Your task to perform on an android device: uninstall "Facebook" Image 0: 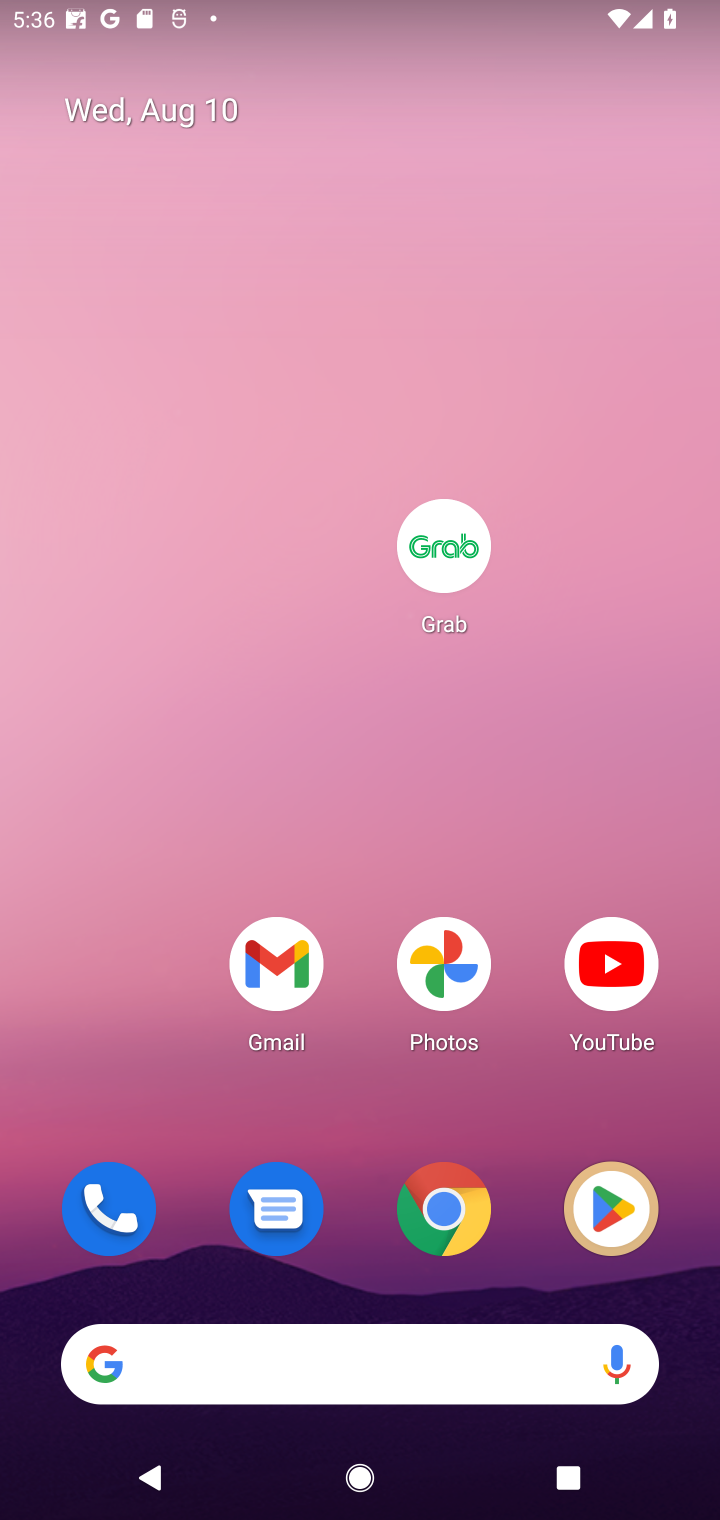
Step 0: drag from (350, 1274) to (462, 244)
Your task to perform on an android device: uninstall "Facebook" Image 1: 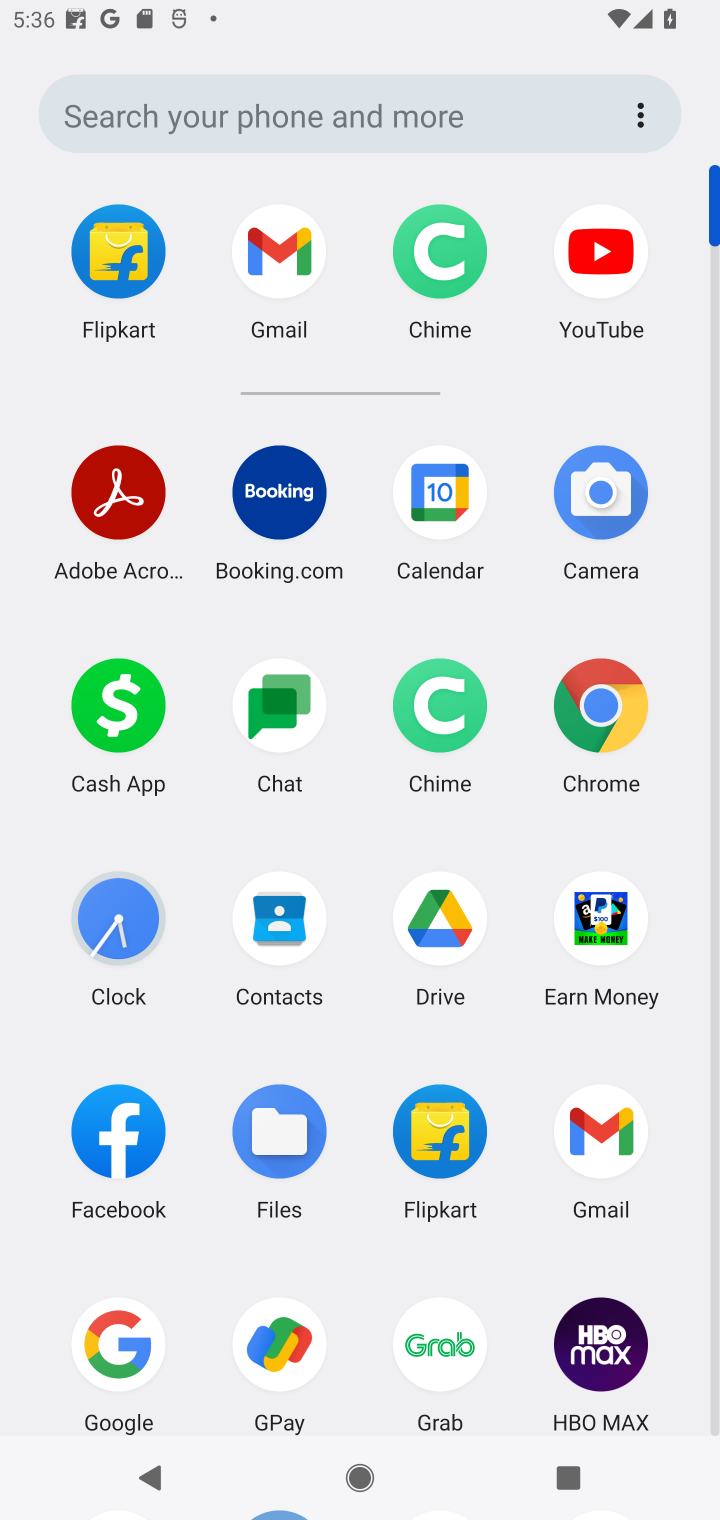
Step 1: click (99, 1175)
Your task to perform on an android device: uninstall "Facebook" Image 2: 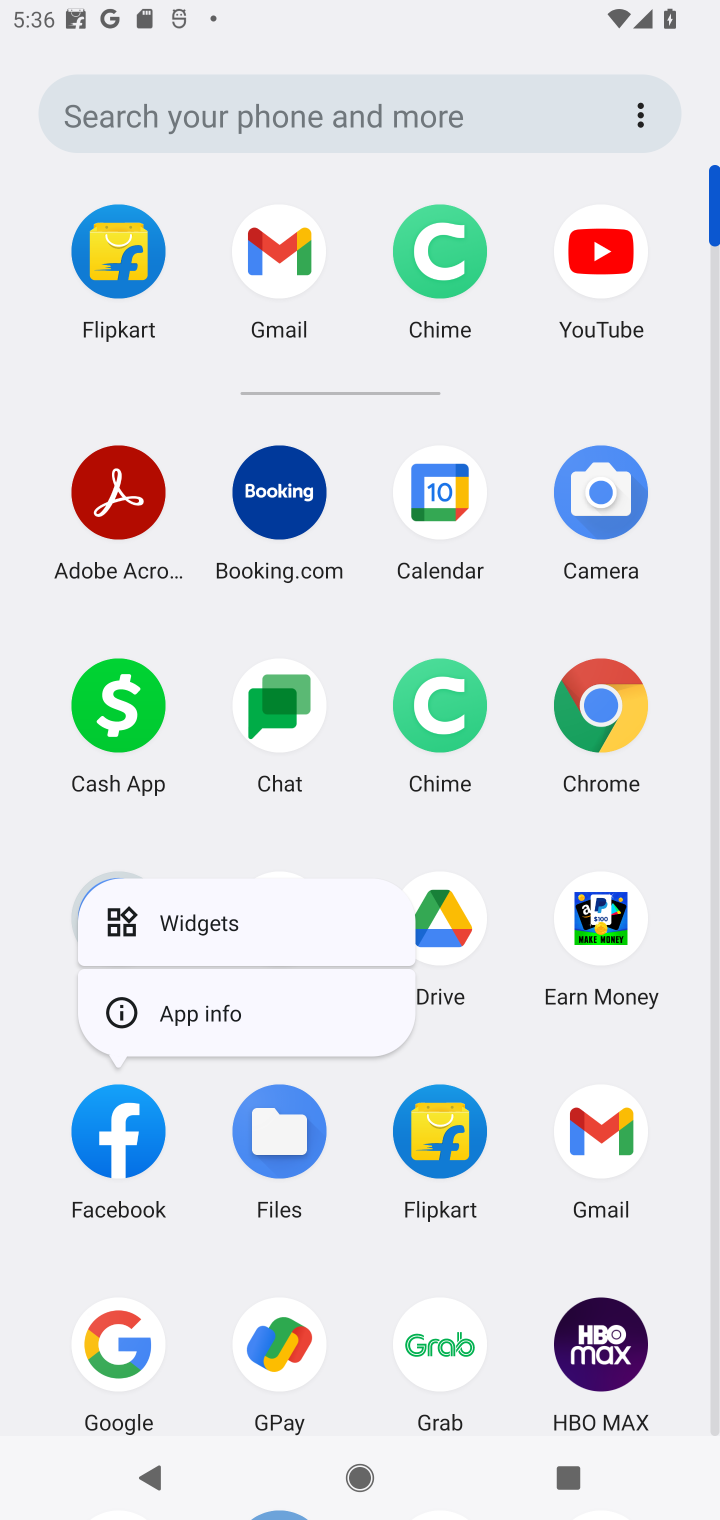
Step 2: click (179, 1018)
Your task to perform on an android device: uninstall "Facebook" Image 3: 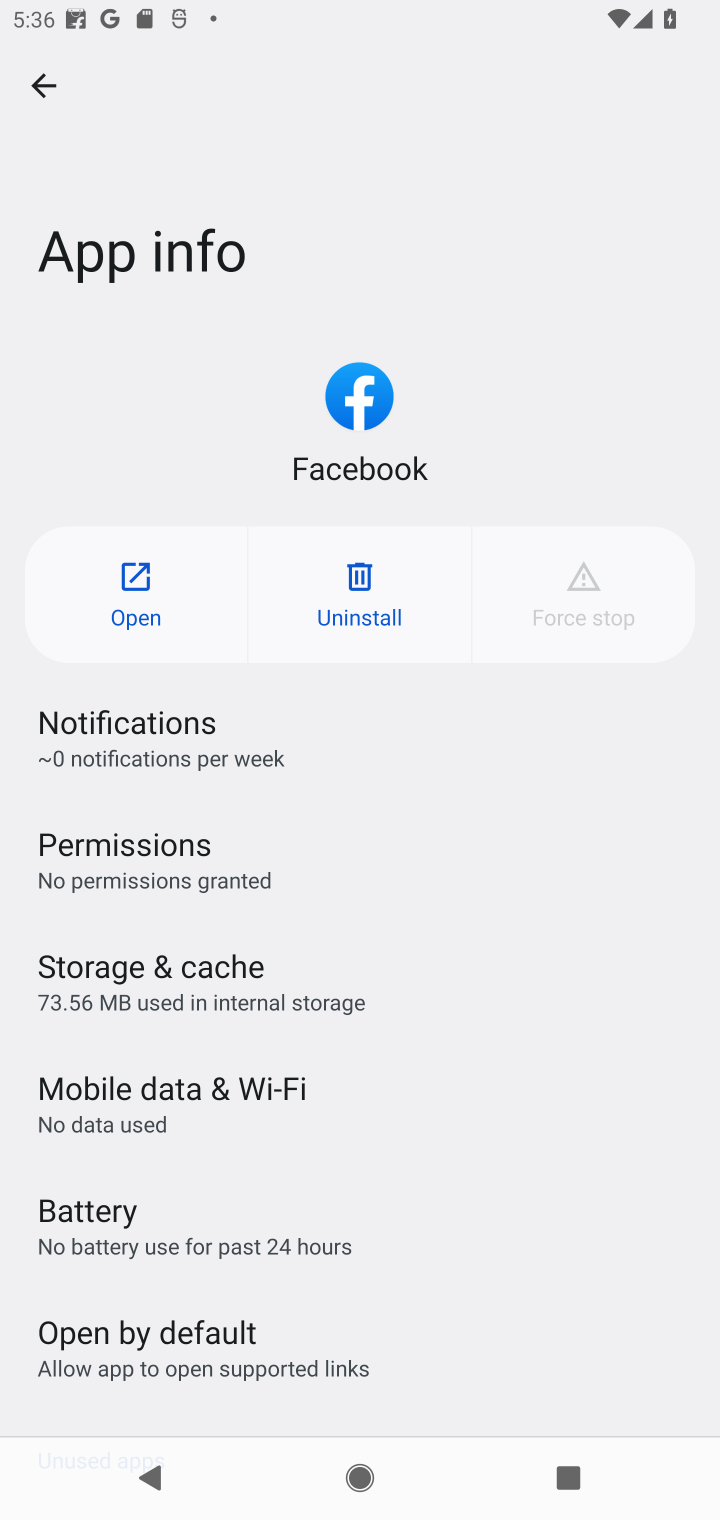
Step 3: click (342, 588)
Your task to perform on an android device: uninstall "Facebook" Image 4: 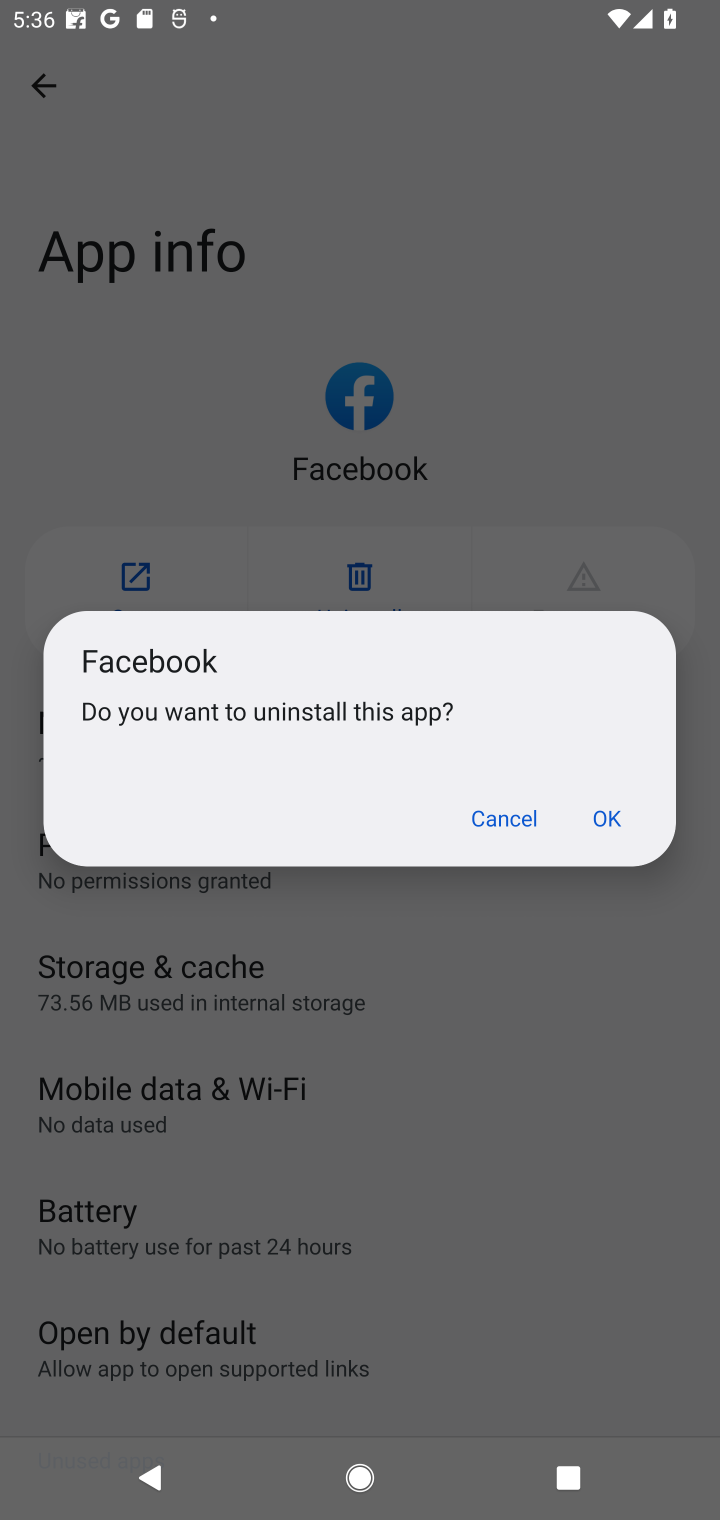
Step 4: click (609, 817)
Your task to perform on an android device: uninstall "Facebook" Image 5: 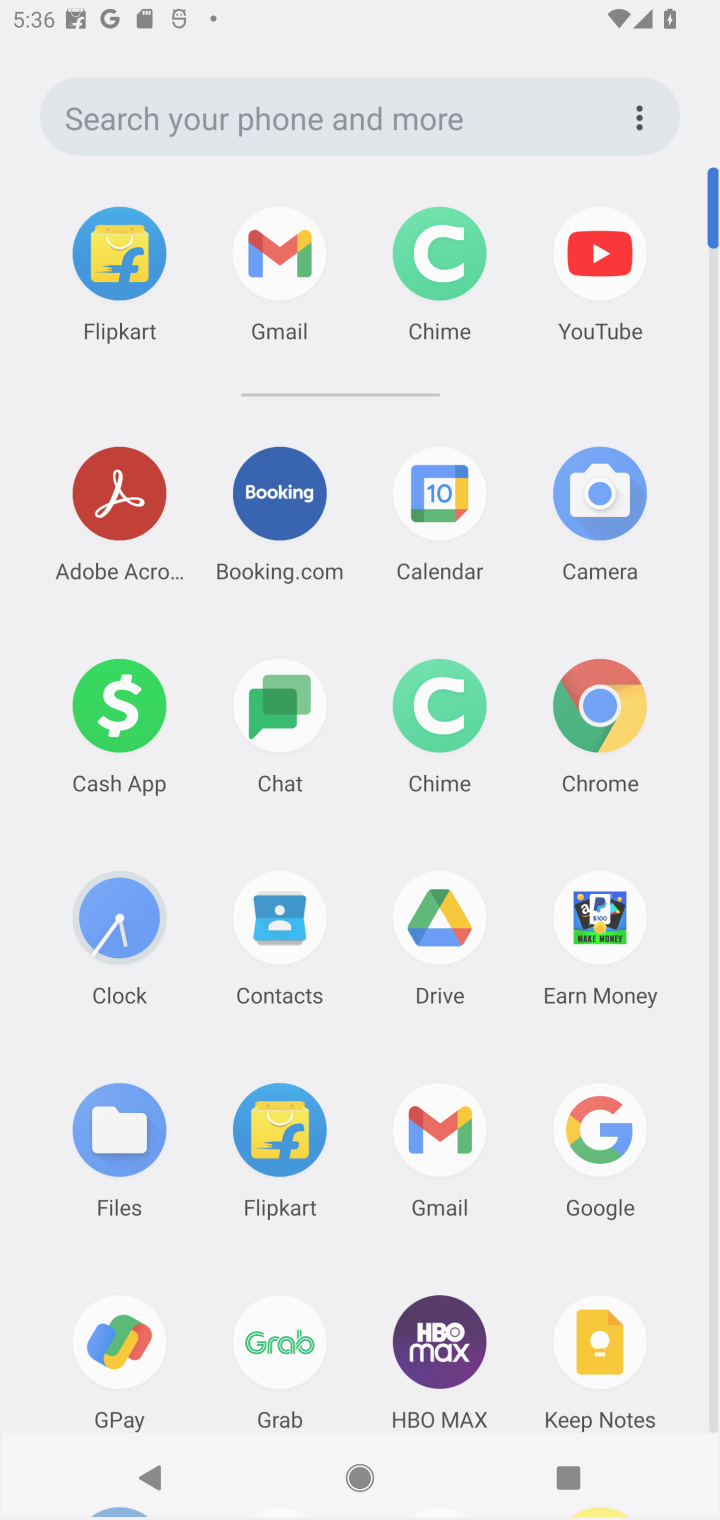
Step 5: task complete